Your task to perform on an android device: Search for a new phone on Amazon. Image 0: 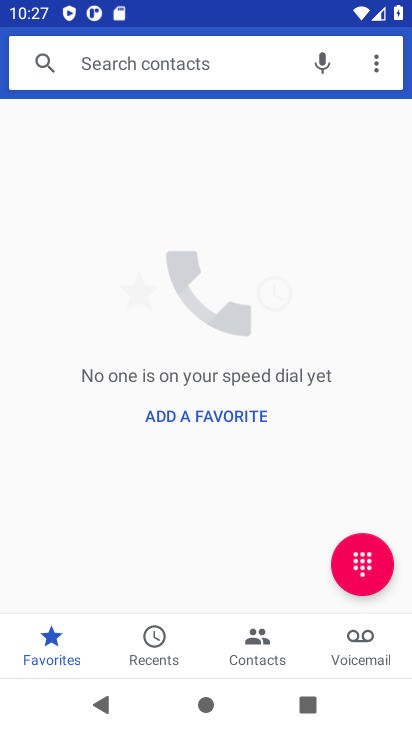
Step 0: press home button
Your task to perform on an android device: Search for a new phone on Amazon. Image 1: 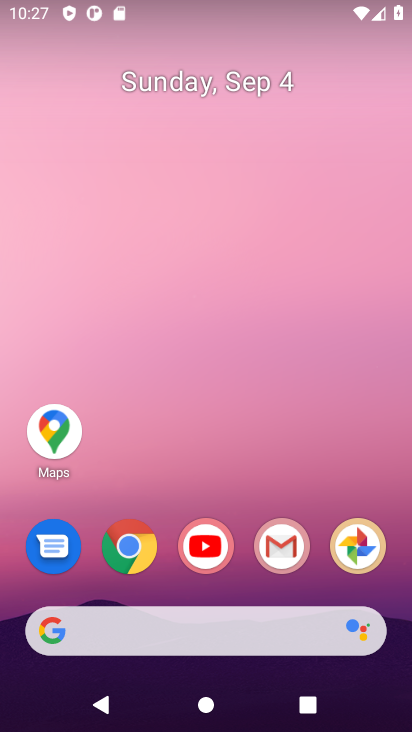
Step 1: click (129, 556)
Your task to perform on an android device: Search for a new phone on Amazon. Image 2: 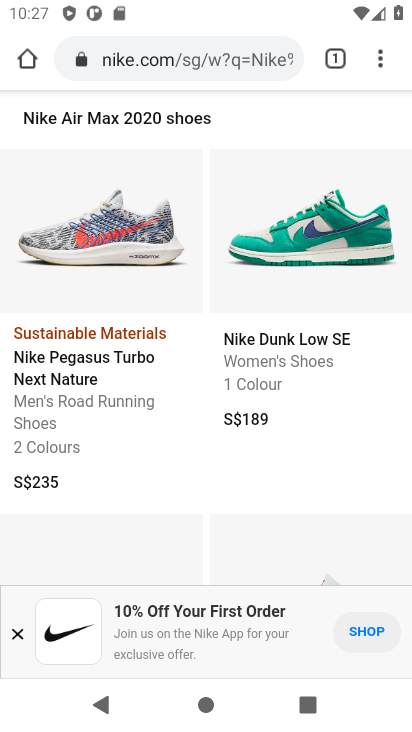
Step 2: click (205, 60)
Your task to perform on an android device: Search for a new phone on Amazon. Image 3: 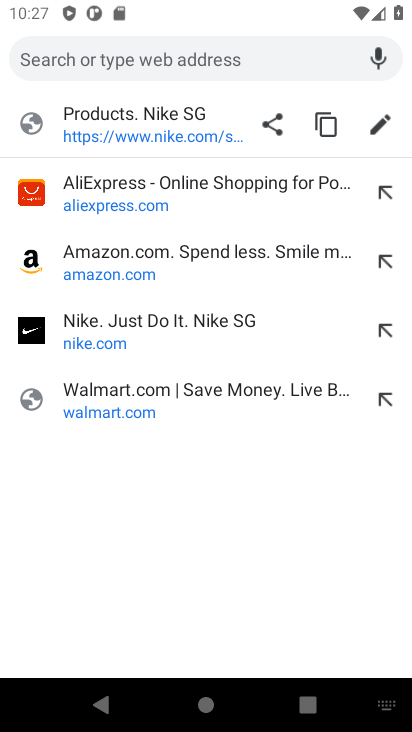
Step 3: click (130, 254)
Your task to perform on an android device: Search for a new phone on Amazon. Image 4: 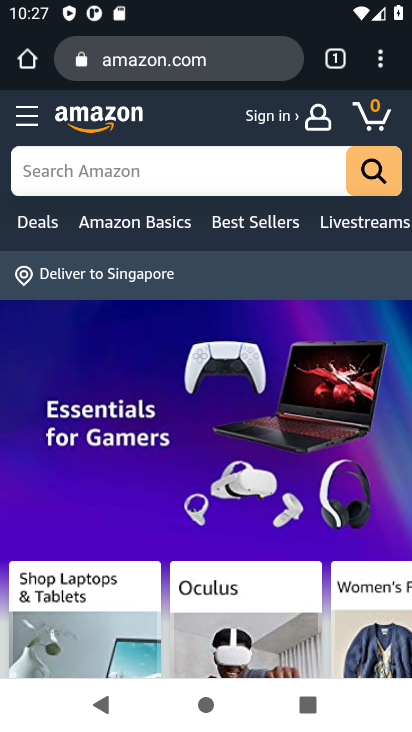
Step 4: click (129, 172)
Your task to perform on an android device: Search for a new phone on Amazon. Image 5: 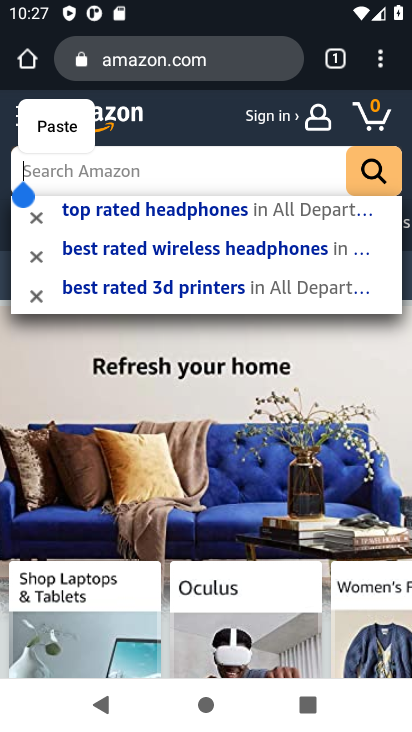
Step 5: type "new phone"
Your task to perform on an android device: Search for a new phone on Amazon. Image 6: 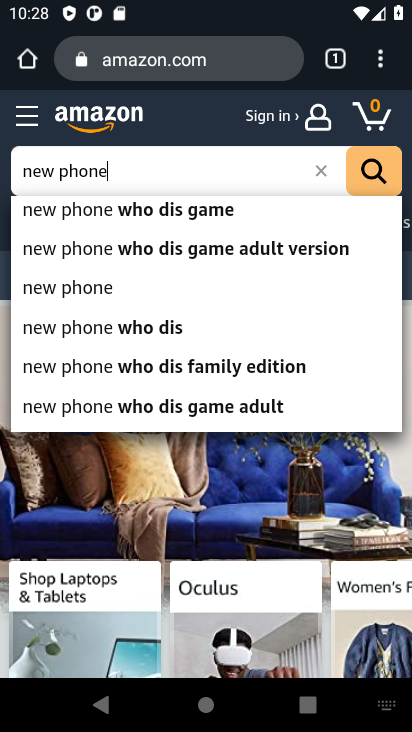
Step 6: click (100, 298)
Your task to perform on an android device: Search for a new phone on Amazon. Image 7: 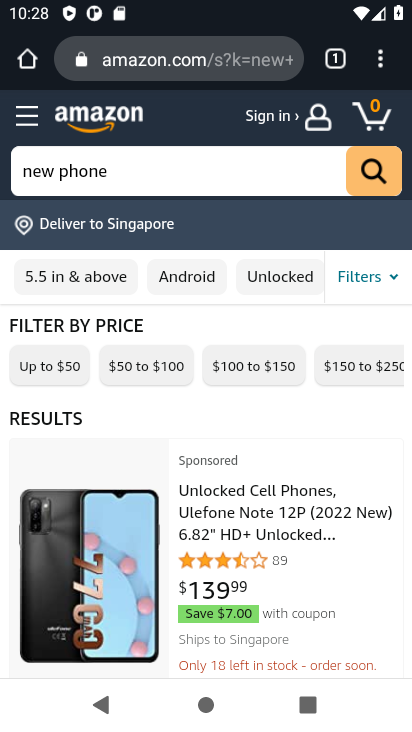
Step 7: task complete